Your task to perform on an android device: Open internet settings Image 0: 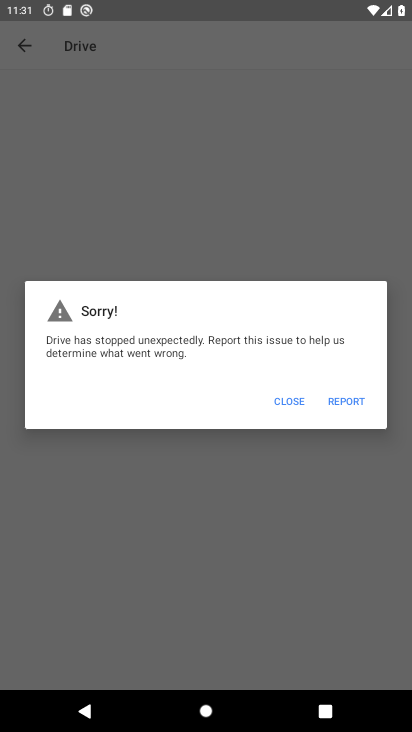
Step 0: press home button
Your task to perform on an android device: Open internet settings Image 1: 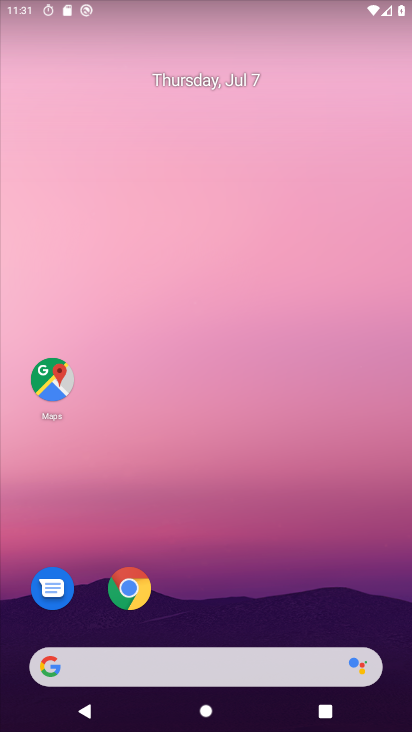
Step 1: drag from (210, 665) to (346, 111)
Your task to perform on an android device: Open internet settings Image 2: 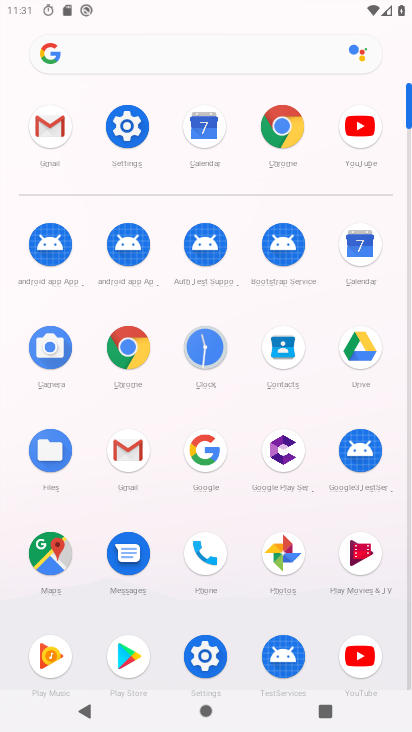
Step 2: click (123, 136)
Your task to perform on an android device: Open internet settings Image 3: 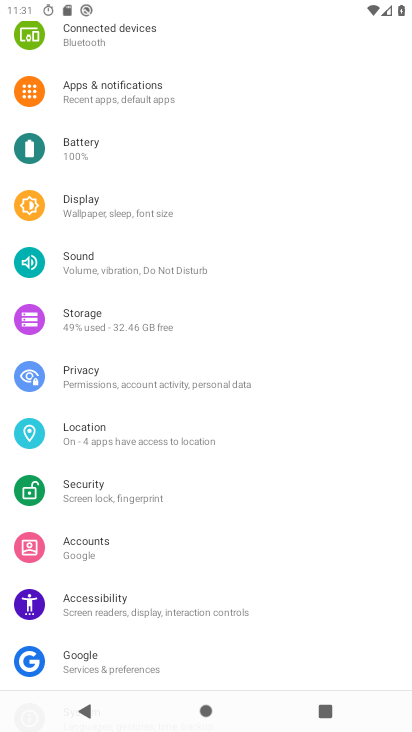
Step 3: drag from (204, 96) to (136, 553)
Your task to perform on an android device: Open internet settings Image 4: 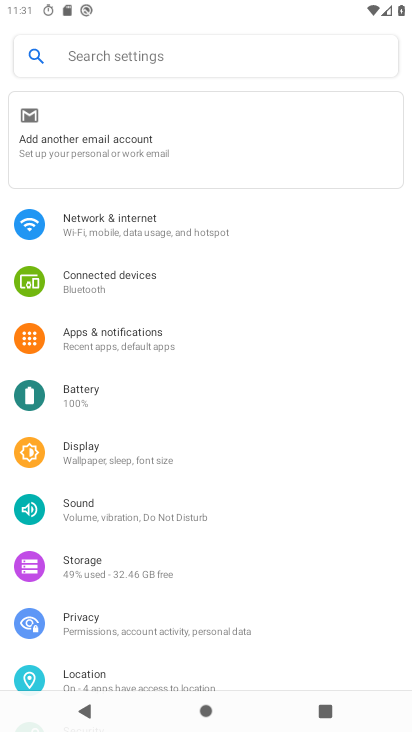
Step 4: click (144, 230)
Your task to perform on an android device: Open internet settings Image 5: 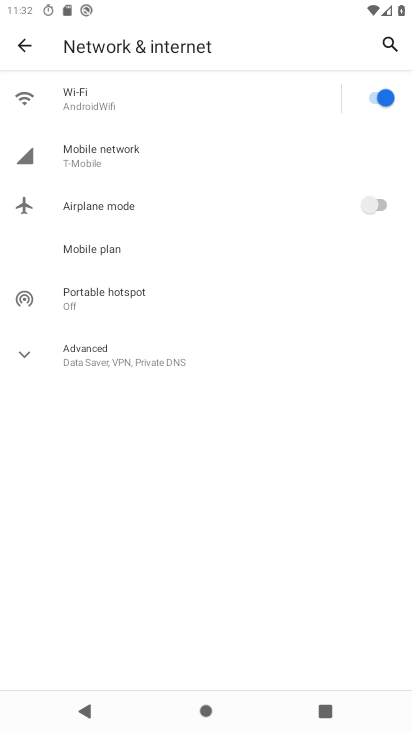
Step 5: task complete